Your task to perform on an android device: show emergency info Image 0: 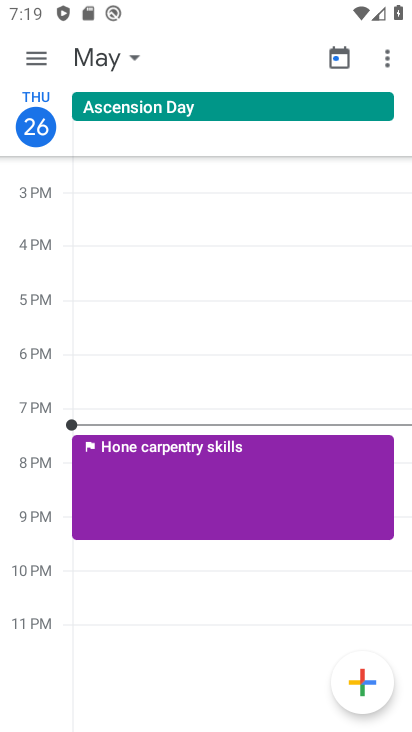
Step 0: press home button
Your task to perform on an android device: show emergency info Image 1: 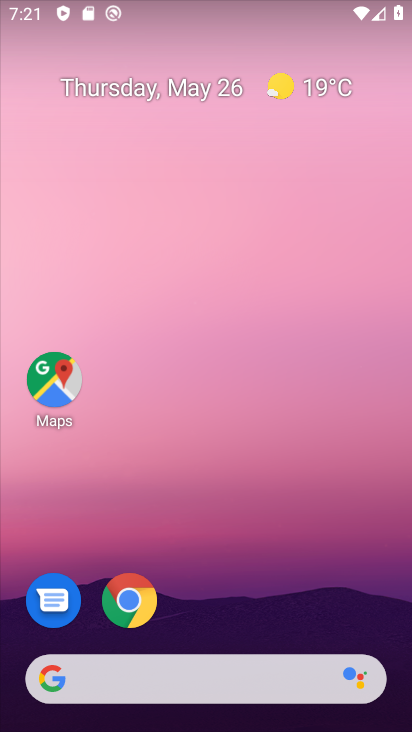
Step 1: drag from (267, 689) to (237, 242)
Your task to perform on an android device: show emergency info Image 2: 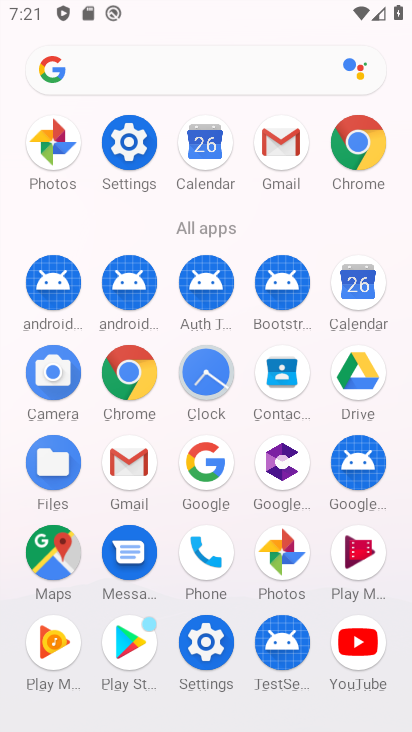
Step 2: click (123, 138)
Your task to perform on an android device: show emergency info Image 3: 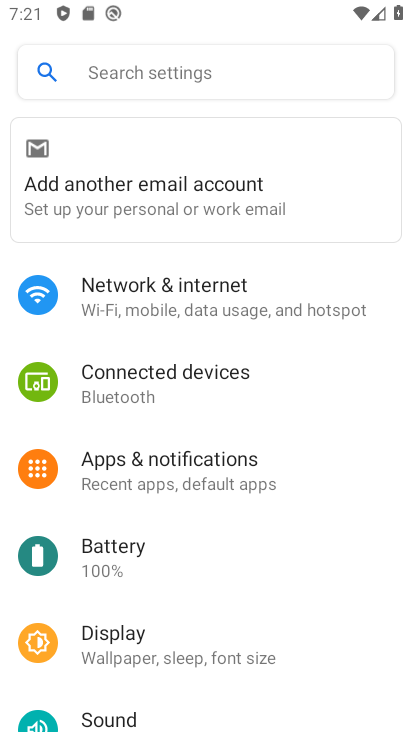
Step 3: click (108, 72)
Your task to perform on an android device: show emergency info Image 4: 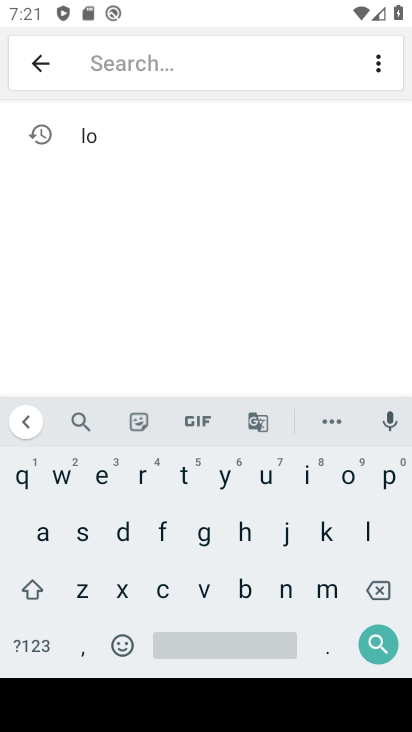
Step 4: click (94, 478)
Your task to perform on an android device: show emergency info Image 5: 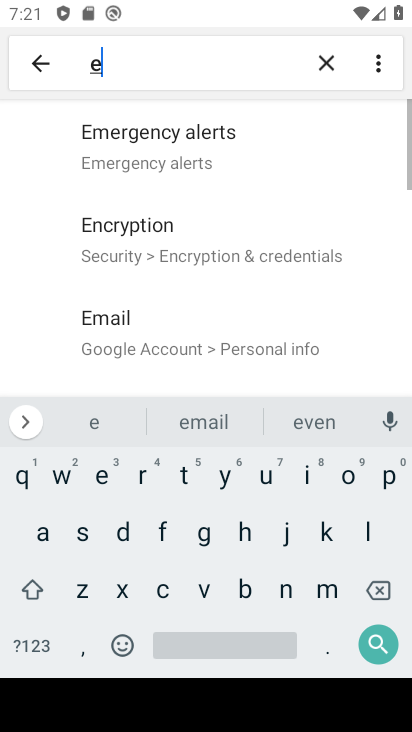
Step 5: click (320, 588)
Your task to perform on an android device: show emergency info Image 6: 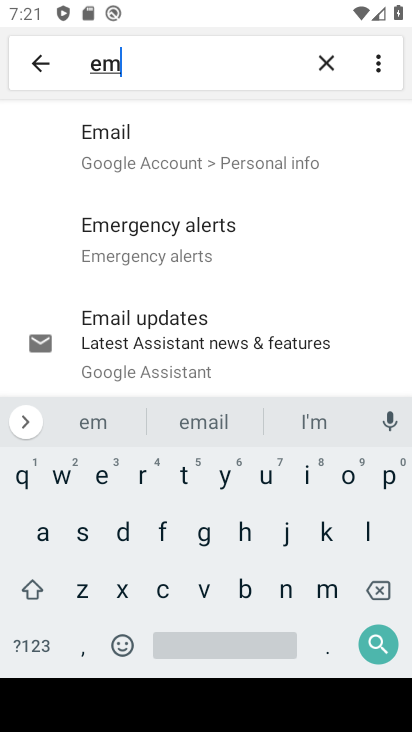
Step 6: click (103, 482)
Your task to perform on an android device: show emergency info Image 7: 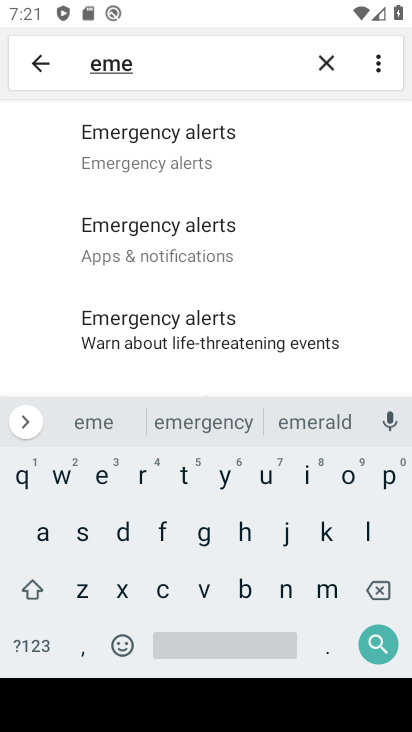
Step 7: click (219, 432)
Your task to perform on an android device: show emergency info Image 8: 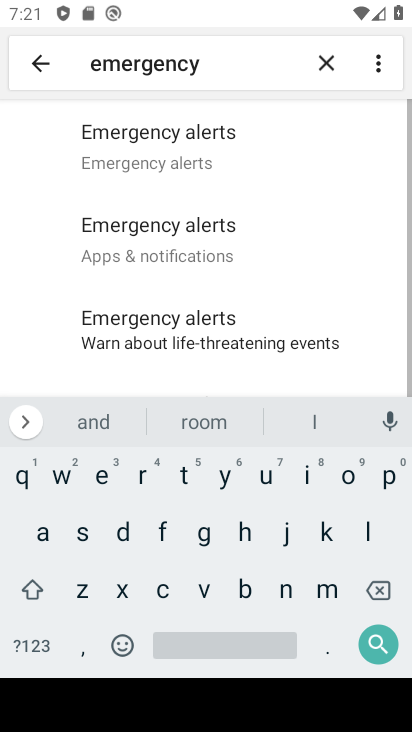
Step 8: click (302, 478)
Your task to perform on an android device: show emergency info Image 9: 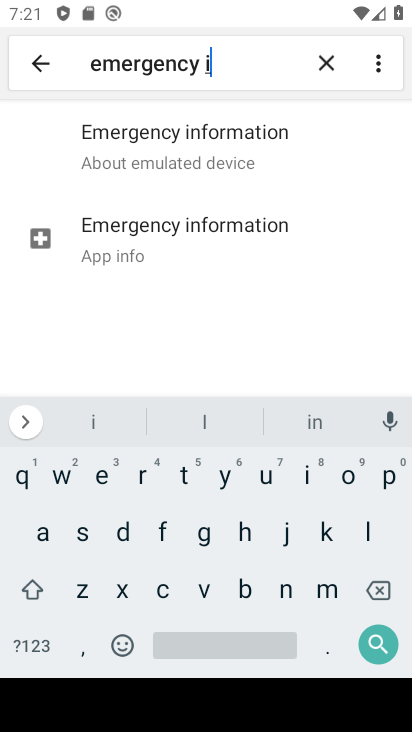
Step 9: click (204, 161)
Your task to perform on an android device: show emergency info Image 10: 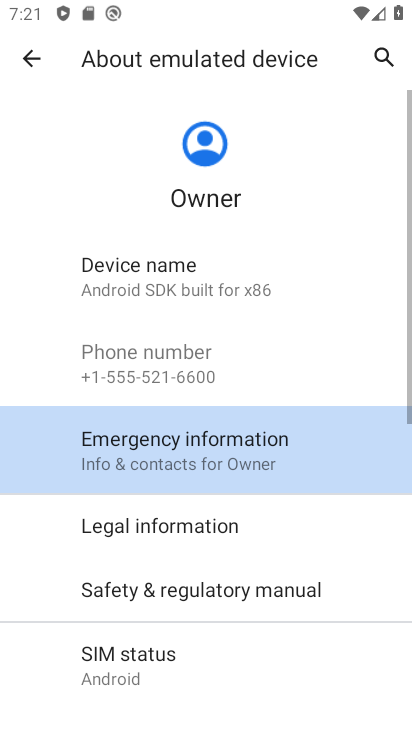
Step 10: task complete